Your task to perform on an android device: Open Youtube and go to the subscriptions tab Image 0: 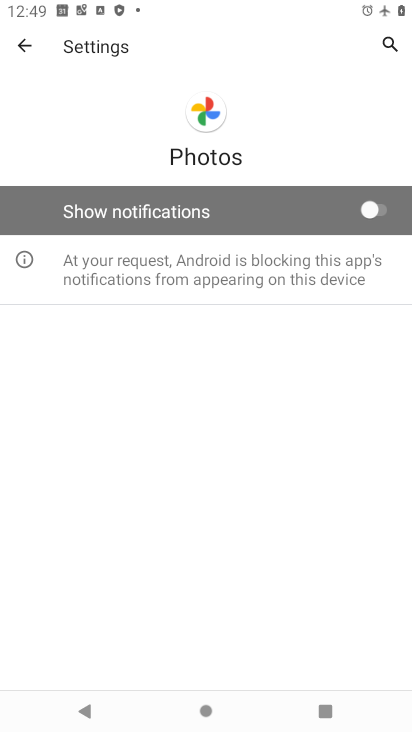
Step 0: press home button
Your task to perform on an android device: Open Youtube and go to the subscriptions tab Image 1: 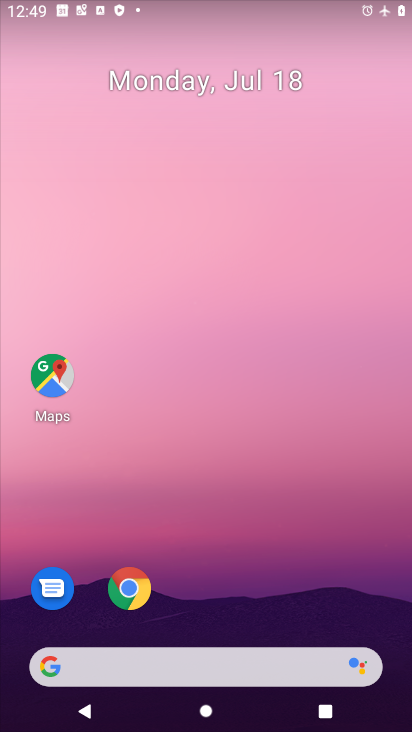
Step 1: drag from (241, 629) to (234, 165)
Your task to perform on an android device: Open Youtube and go to the subscriptions tab Image 2: 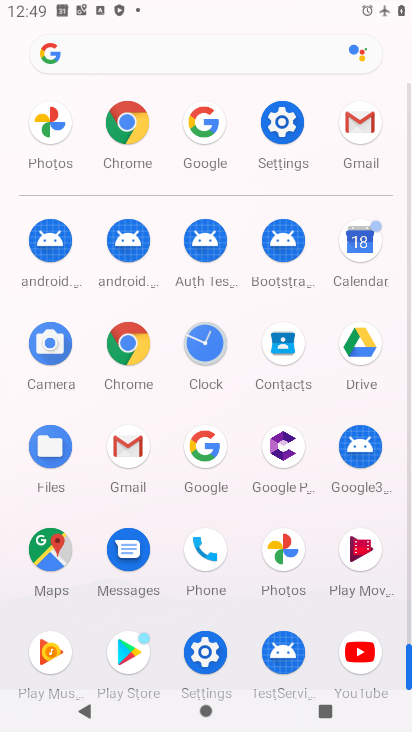
Step 2: click (356, 678)
Your task to perform on an android device: Open Youtube and go to the subscriptions tab Image 3: 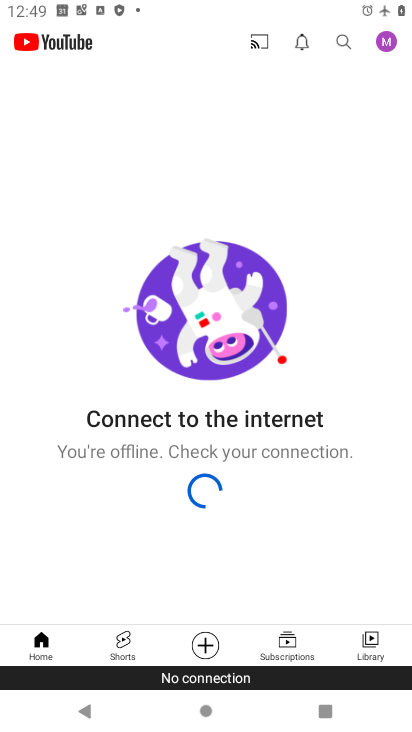
Step 3: click (305, 649)
Your task to perform on an android device: Open Youtube and go to the subscriptions tab Image 4: 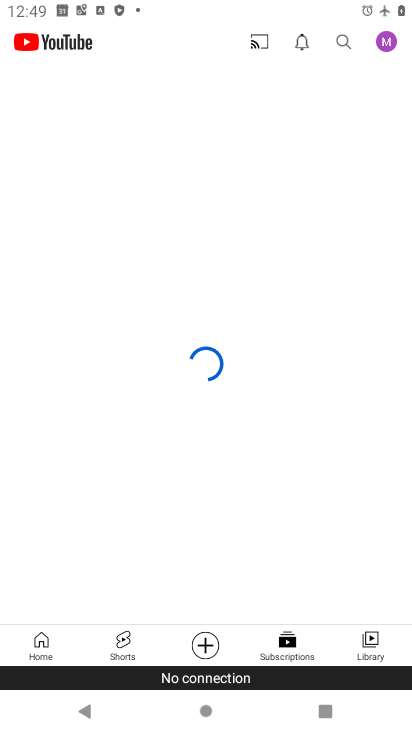
Step 4: task complete